Your task to perform on an android device: turn on airplane mode Image 0: 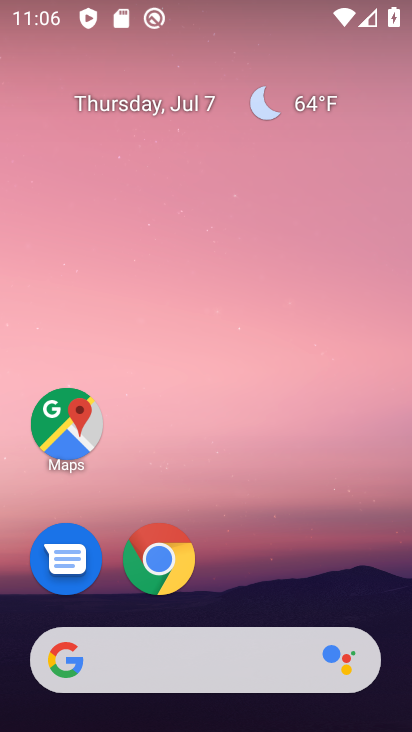
Step 0: drag from (191, 617) to (267, 169)
Your task to perform on an android device: turn on airplane mode Image 1: 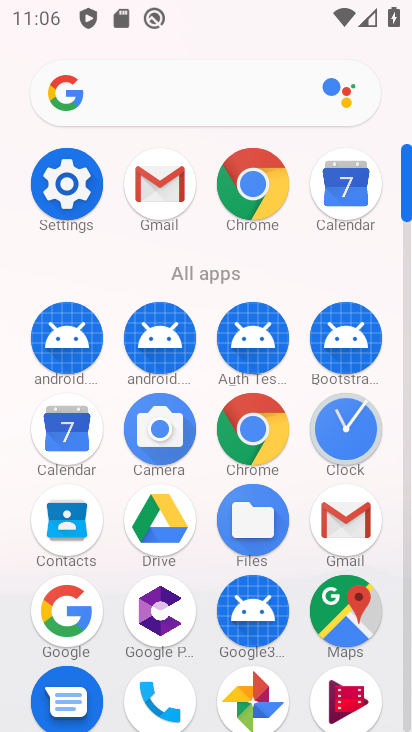
Step 1: click (67, 181)
Your task to perform on an android device: turn on airplane mode Image 2: 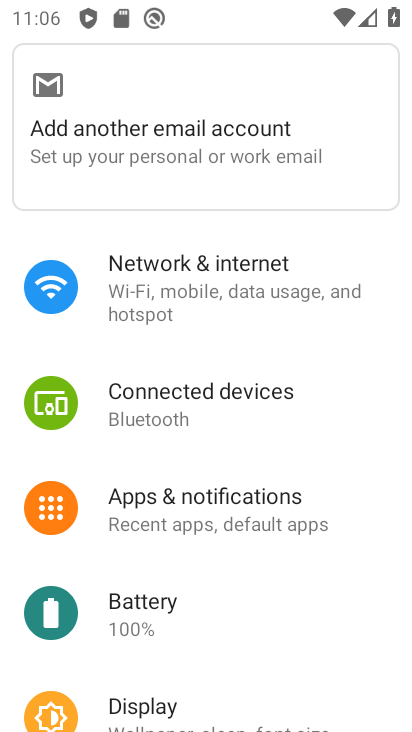
Step 2: click (198, 282)
Your task to perform on an android device: turn on airplane mode Image 3: 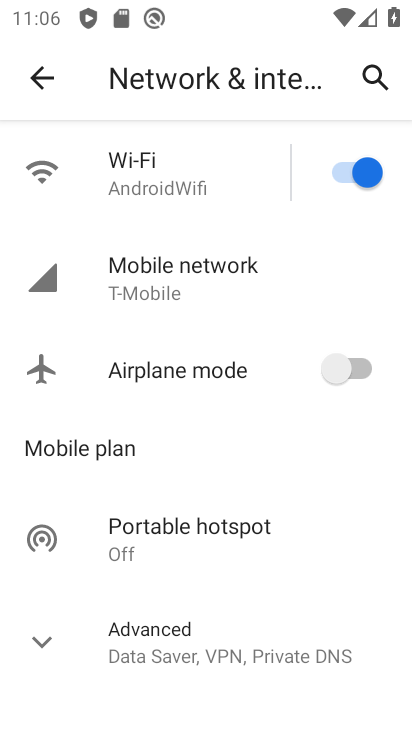
Step 3: click (365, 359)
Your task to perform on an android device: turn on airplane mode Image 4: 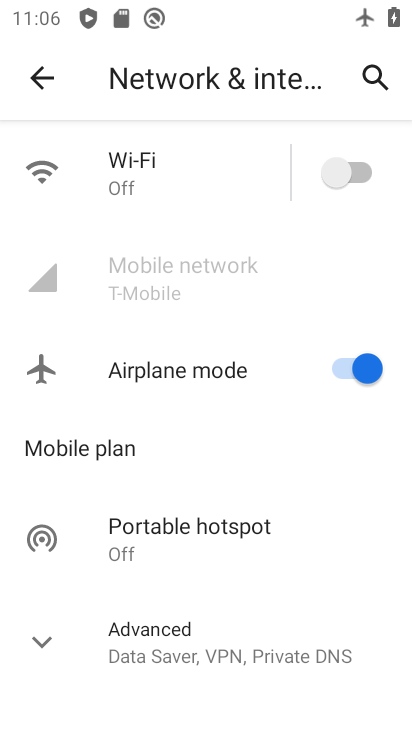
Step 4: task complete